Your task to perform on an android device: Open the Play Movies app and select the watchlist tab. Image 0: 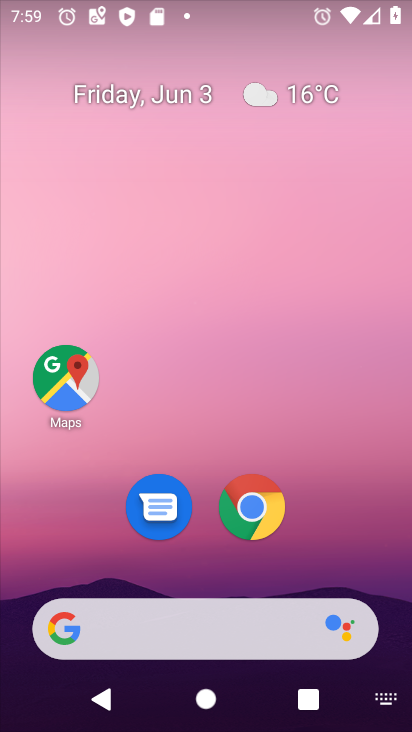
Step 0: drag from (332, 436) to (204, 15)
Your task to perform on an android device: Open the Play Movies app and select the watchlist tab. Image 1: 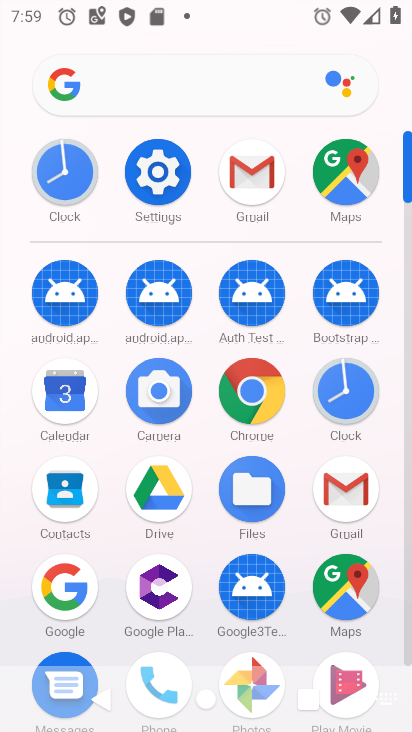
Step 1: drag from (303, 536) to (255, 145)
Your task to perform on an android device: Open the Play Movies app and select the watchlist tab. Image 2: 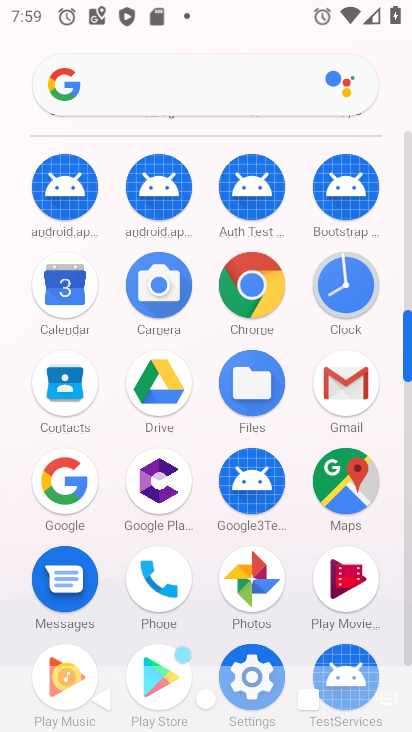
Step 2: click (338, 568)
Your task to perform on an android device: Open the Play Movies app and select the watchlist tab. Image 3: 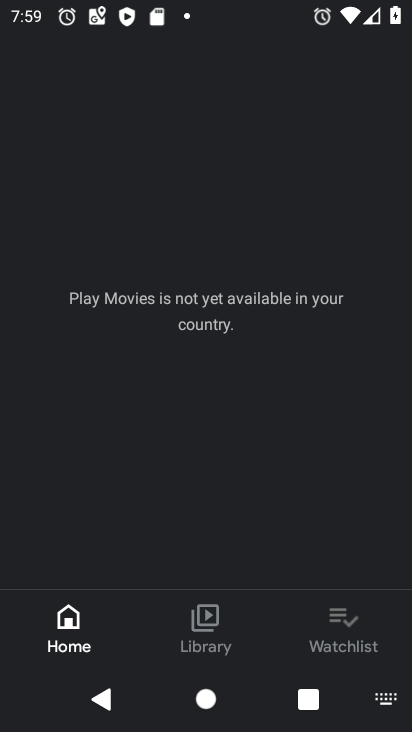
Step 3: click (353, 636)
Your task to perform on an android device: Open the Play Movies app and select the watchlist tab. Image 4: 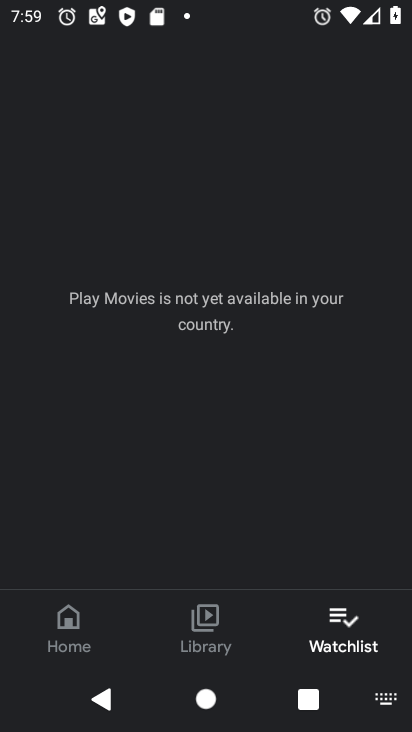
Step 4: task complete